Your task to perform on an android device: Is it going to rain this weekend? Image 0: 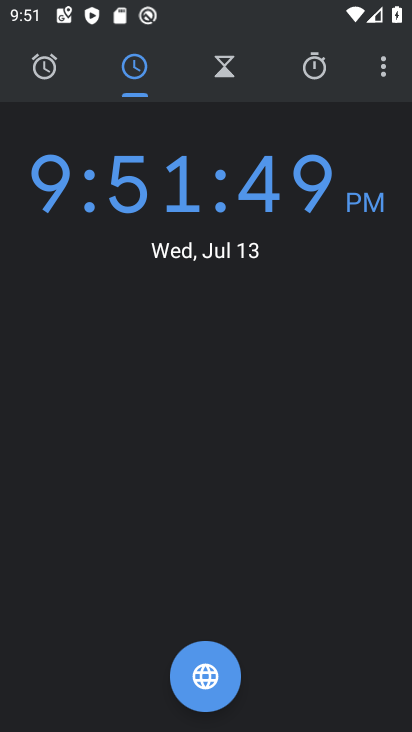
Step 0: press home button
Your task to perform on an android device: Is it going to rain this weekend? Image 1: 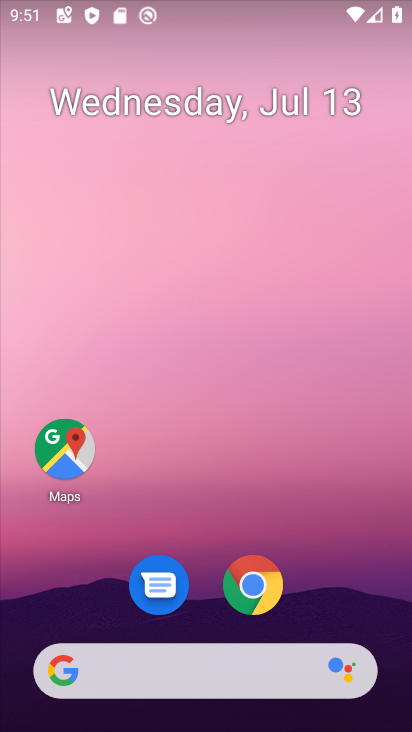
Step 1: click (270, 669)
Your task to perform on an android device: Is it going to rain this weekend? Image 2: 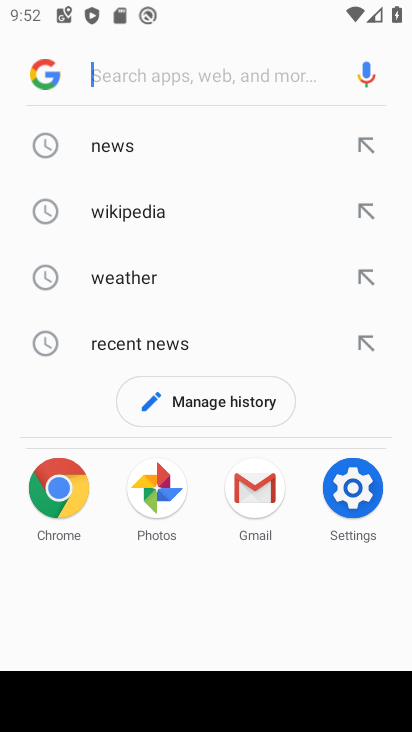
Step 2: click (368, 276)
Your task to perform on an android device: Is it going to rain this weekend? Image 3: 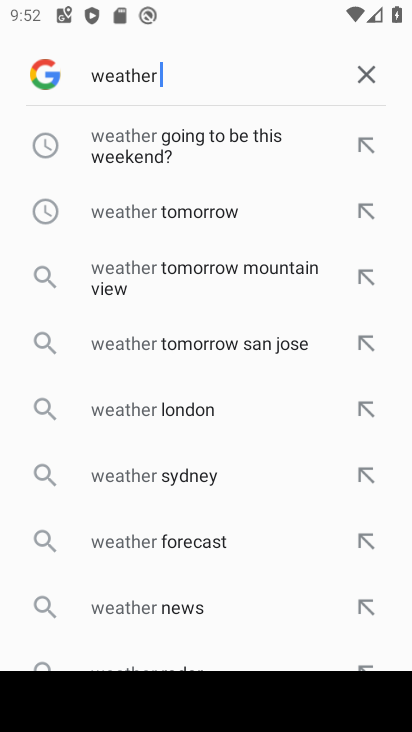
Step 3: click (372, 72)
Your task to perform on an android device: Is it going to rain this weekend? Image 4: 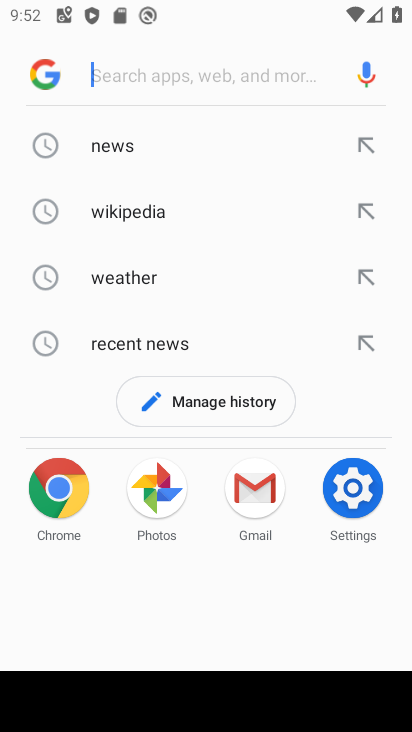
Step 4: click (40, 276)
Your task to perform on an android device: Is it going to rain this weekend? Image 5: 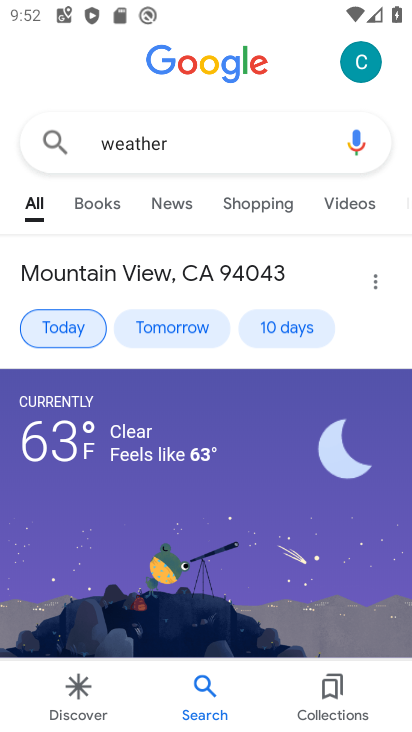
Step 5: click (67, 324)
Your task to perform on an android device: Is it going to rain this weekend? Image 6: 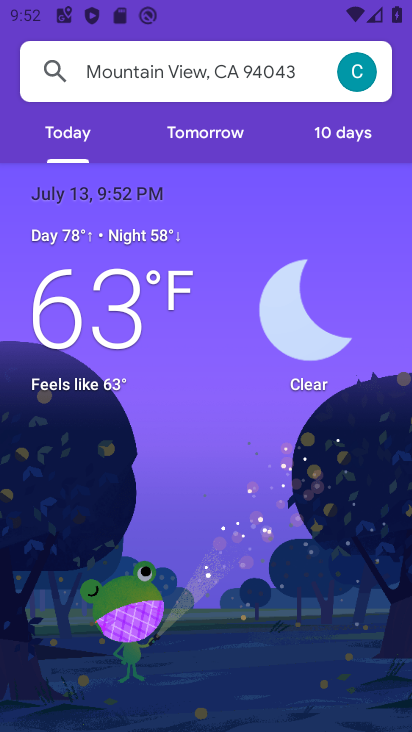
Step 6: click (341, 137)
Your task to perform on an android device: Is it going to rain this weekend? Image 7: 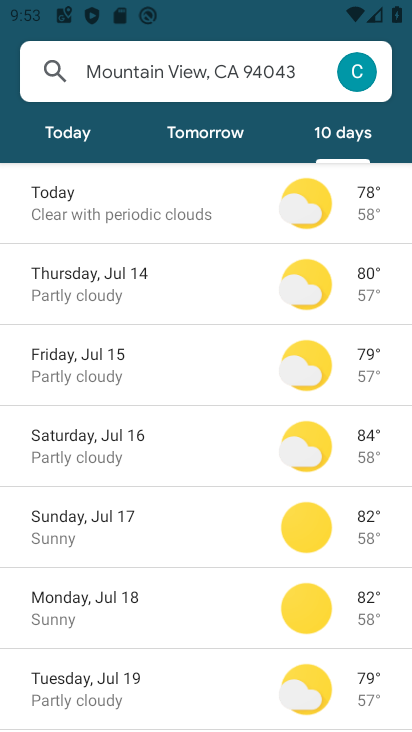
Step 7: click (166, 434)
Your task to perform on an android device: Is it going to rain this weekend? Image 8: 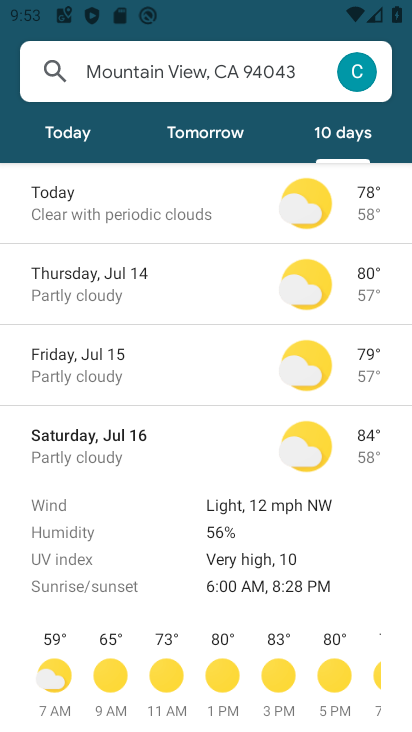
Step 8: task complete